Your task to perform on an android device: Open the Play Movies app and select the watchlist tab. Image 0: 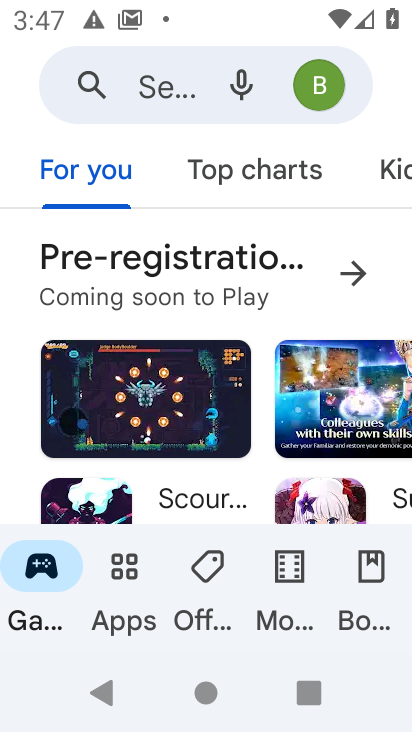
Step 0: press home button
Your task to perform on an android device: Open the Play Movies app and select the watchlist tab. Image 1: 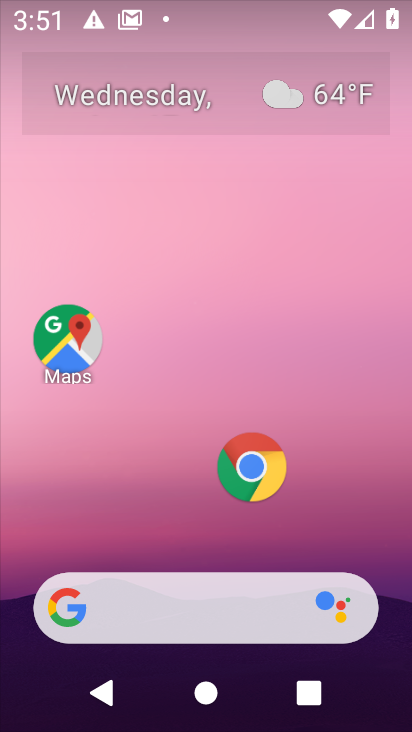
Step 1: task complete